Your task to perform on an android device: open a bookmark in the chrome app Image 0: 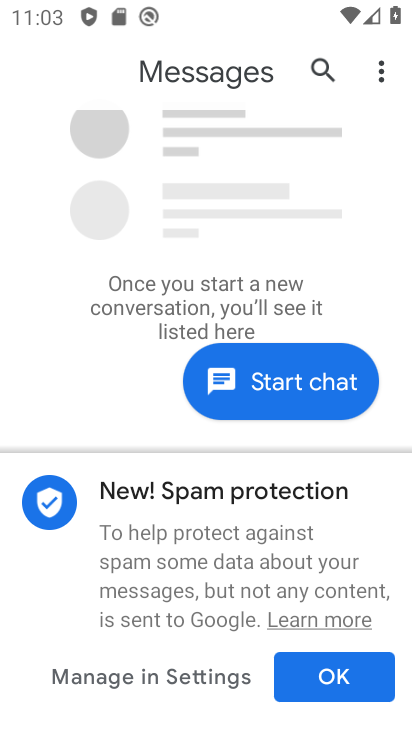
Step 0: task complete